Your task to perform on an android device: Check the news Image 0: 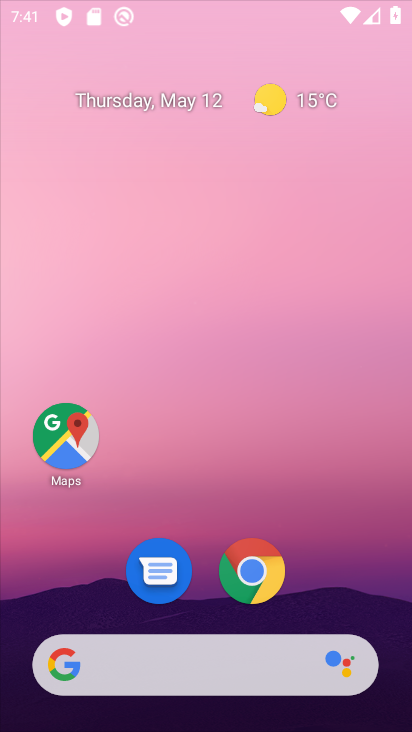
Step 0: click (90, 1)
Your task to perform on an android device: Check the news Image 1: 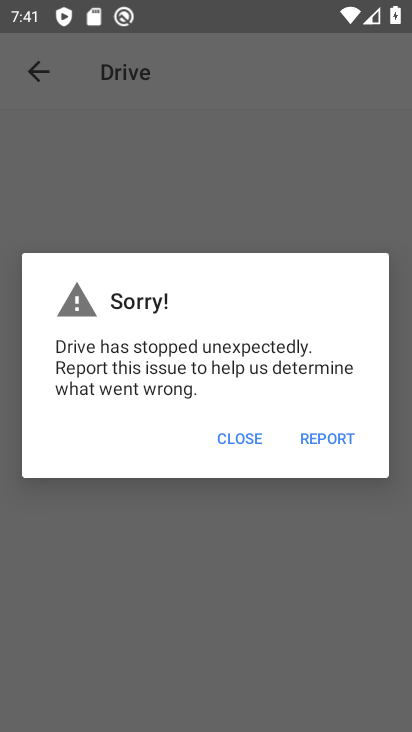
Step 1: task complete